Your task to perform on an android device: search for starred emails in the gmail app Image 0: 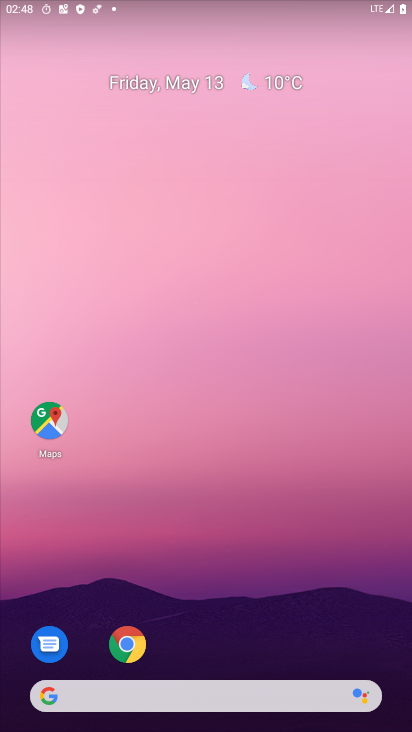
Step 0: drag from (320, 600) to (383, 0)
Your task to perform on an android device: search for starred emails in the gmail app Image 1: 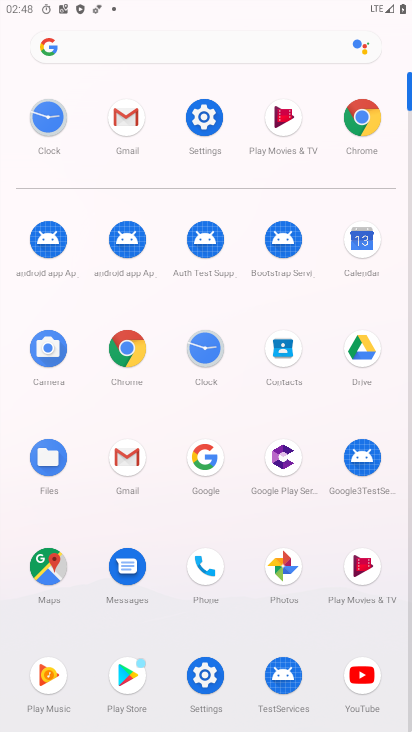
Step 1: click (132, 469)
Your task to perform on an android device: search for starred emails in the gmail app Image 2: 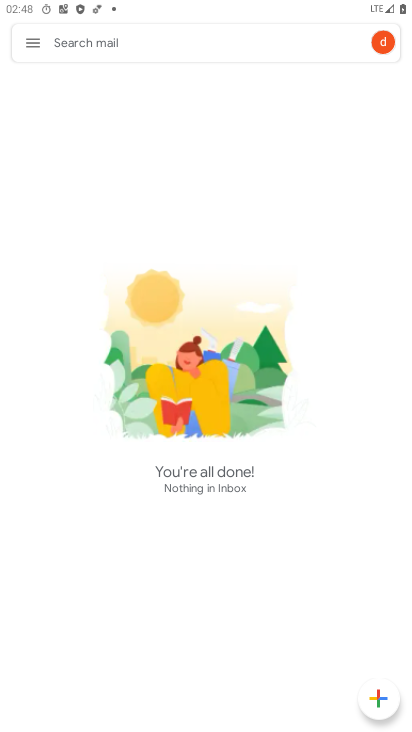
Step 2: click (26, 39)
Your task to perform on an android device: search for starred emails in the gmail app Image 3: 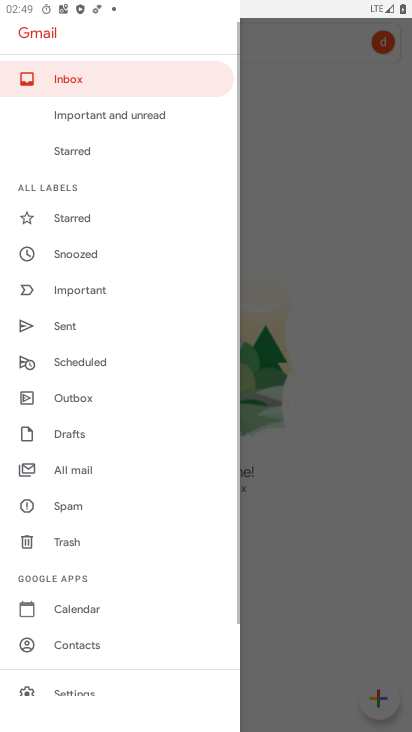
Step 3: click (131, 222)
Your task to perform on an android device: search for starred emails in the gmail app Image 4: 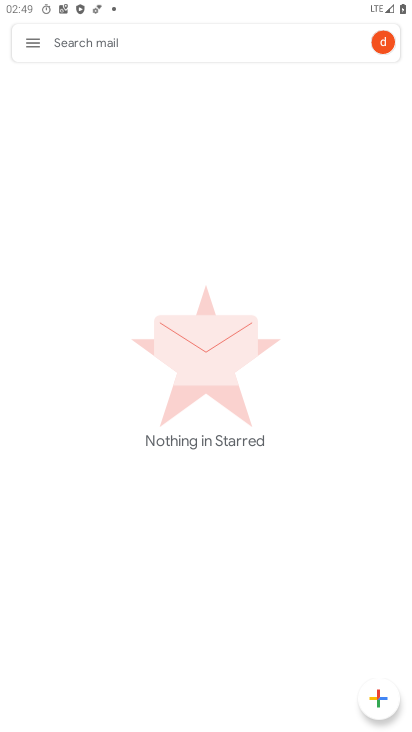
Step 4: task complete